Your task to perform on an android device: open the mobile data screen to see how much data has been used Image 0: 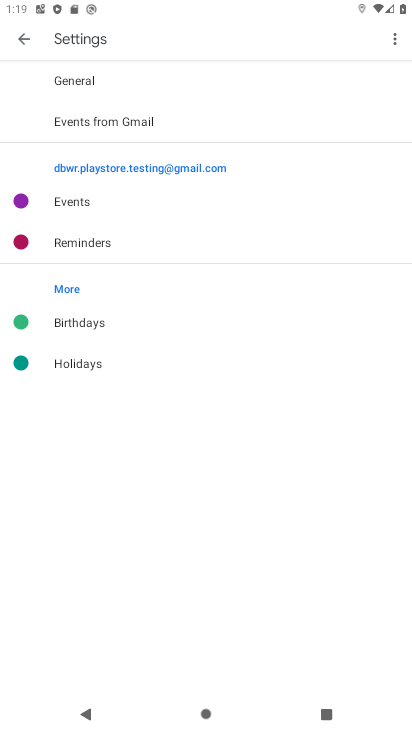
Step 0: press home button
Your task to perform on an android device: open the mobile data screen to see how much data has been used Image 1: 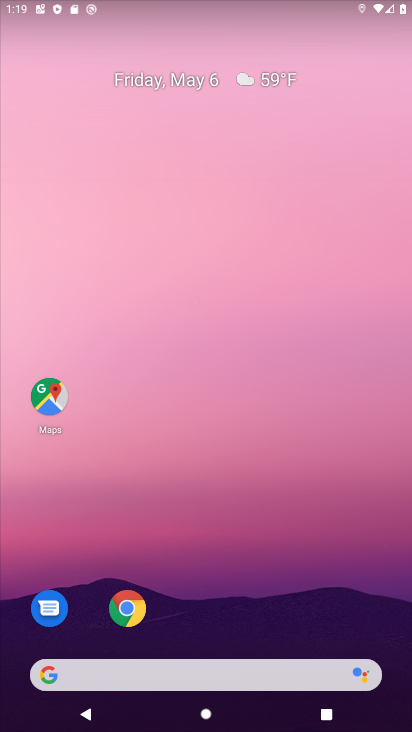
Step 1: drag from (286, 597) to (290, 26)
Your task to perform on an android device: open the mobile data screen to see how much data has been used Image 2: 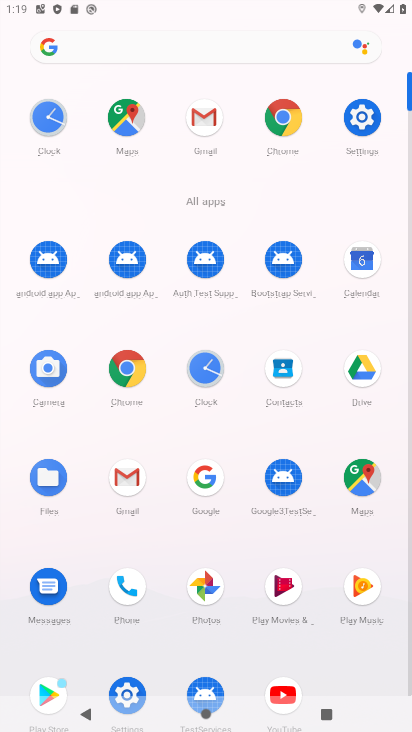
Step 2: drag from (356, 8) to (341, 517)
Your task to perform on an android device: open the mobile data screen to see how much data has been used Image 3: 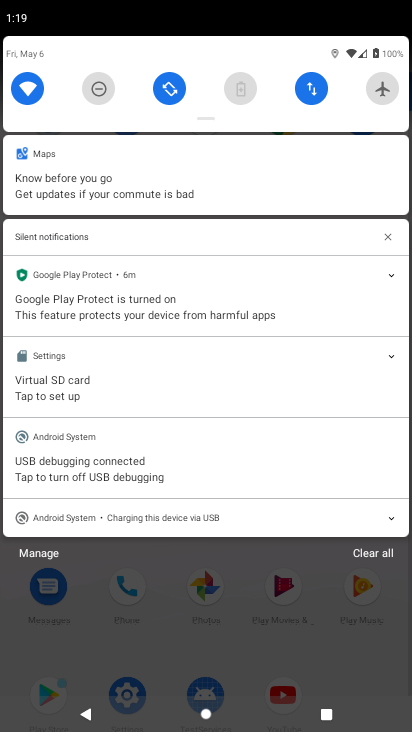
Step 3: click (297, 93)
Your task to perform on an android device: open the mobile data screen to see how much data has been used Image 4: 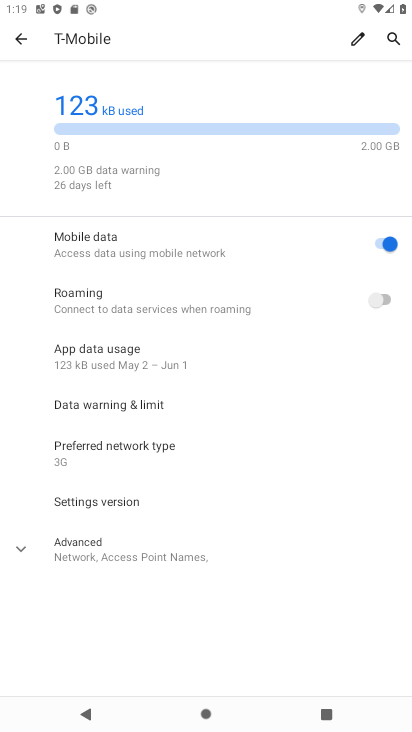
Step 4: task complete